Your task to perform on an android device: star an email in the gmail app Image 0: 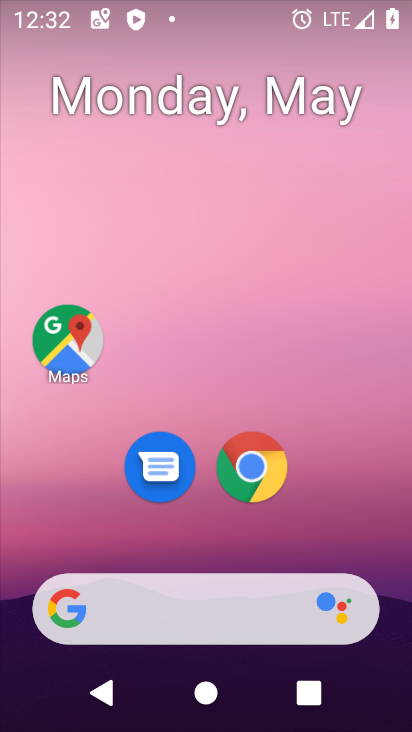
Step 0: drag from (389, 566) to (408, 67)
Your task to perform on an android device: star an email in the gmail app Image 1: 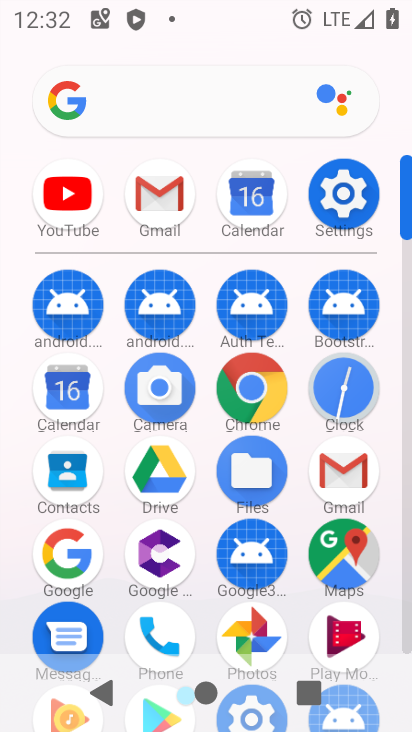
Step 1: click (164, 190)
Your task to perform on an android device: star an email in the gmail app Image 2: 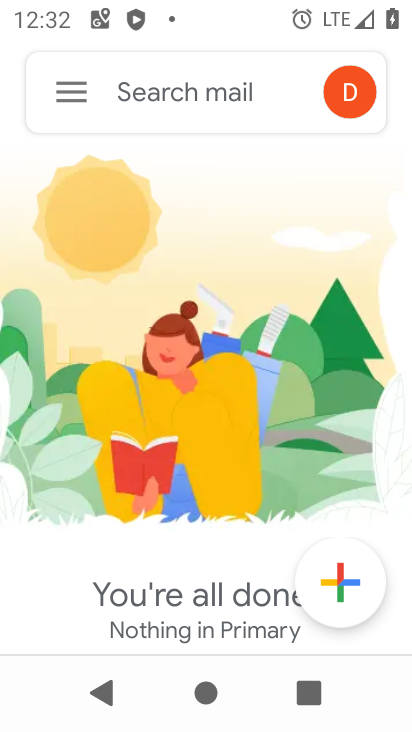
Step 2: click (71, 93)
Your task to perform on an android device: star an email in the gmail app Image 3: 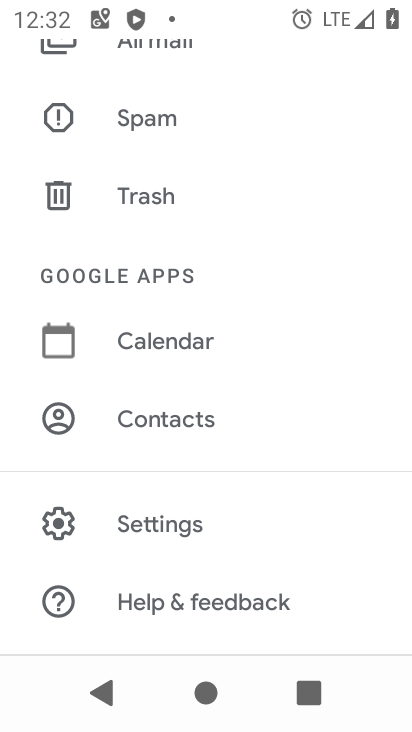
Step 3: drag from (256, 220) to (267, 564)
Your task to perform on an android device: star an email in the gmail app Image 4: 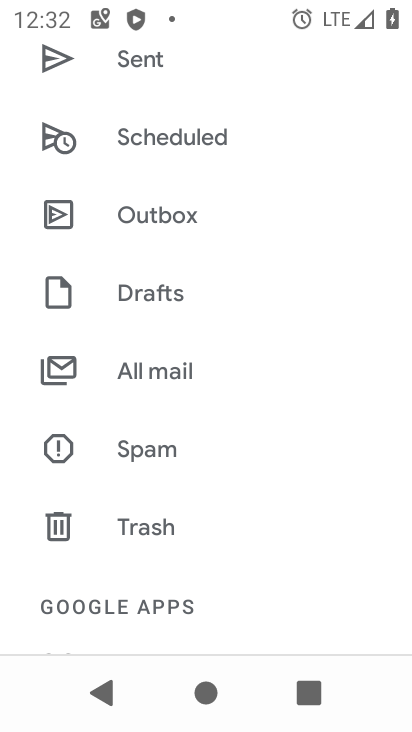
Step 4: click (137, 376)
Your task to perform on an android device: star an email in the gmail app Image 5: 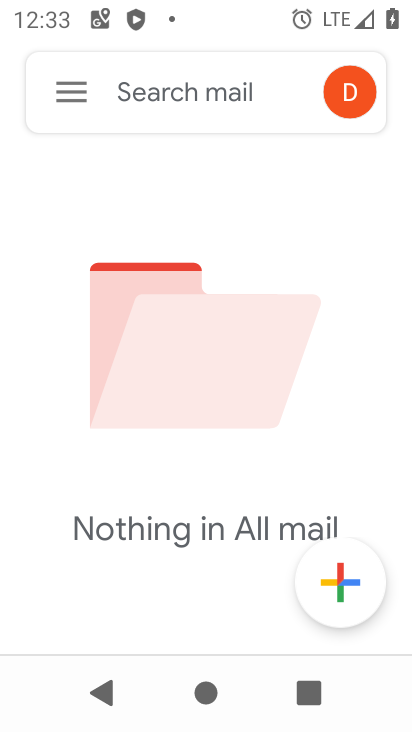
Step 5: task complete